Your task to perform on an android device: Search for seafood restaurants on Google Maps Image 0: 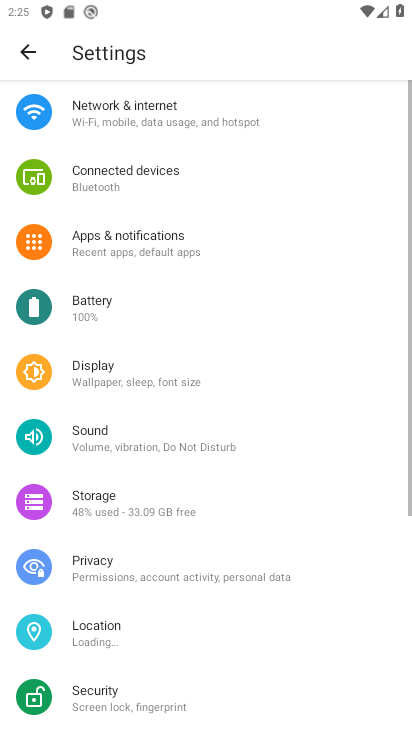
Step 0: press home button
Your task to perform on an android device: Search for seafood restaurants on Google Maps Image 1: 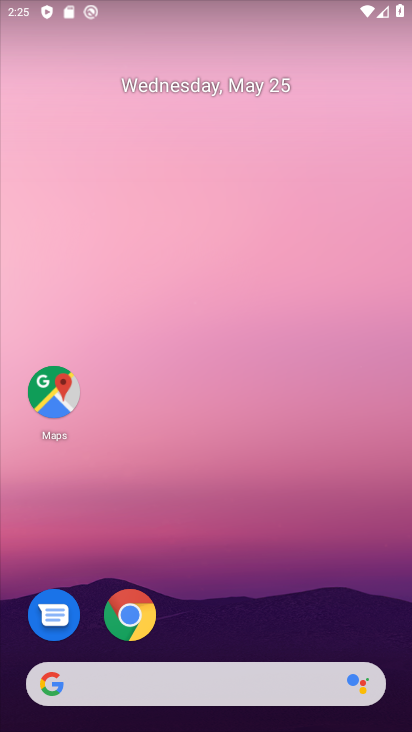
Step 1: click (48, 375)
Your task to perform on an android device: Search for seafood restaurants on Google Maps Image 2: 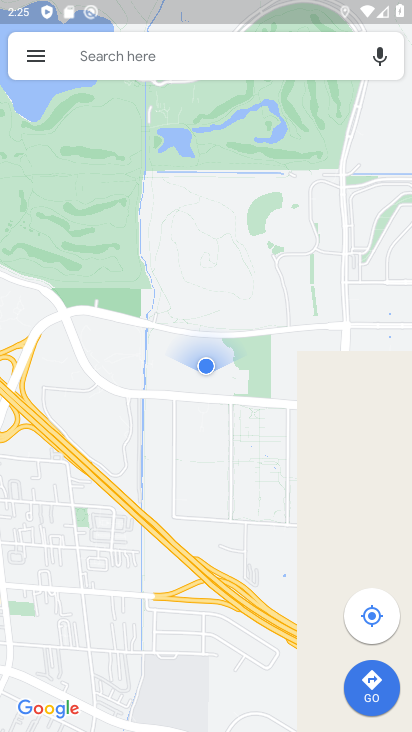
Step 2: click (69, 54)
Your task to perform on an android device: Search for seafood restaurants on Google Maps Image 3: 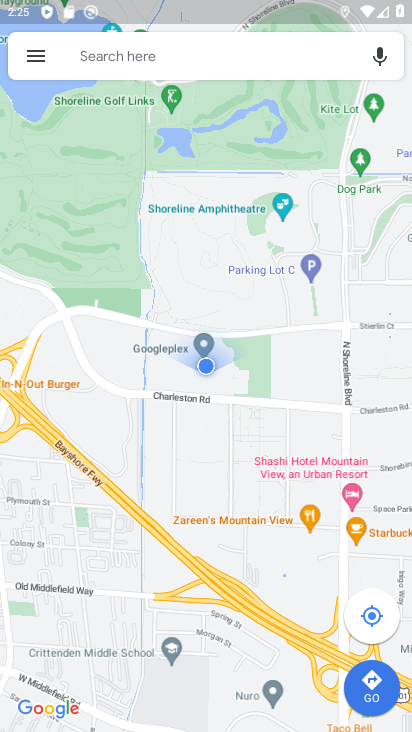
Step 3: click (70, 53)
Your task to perform on an android device: Search for seafood restaurants on Google Maps Image 4: 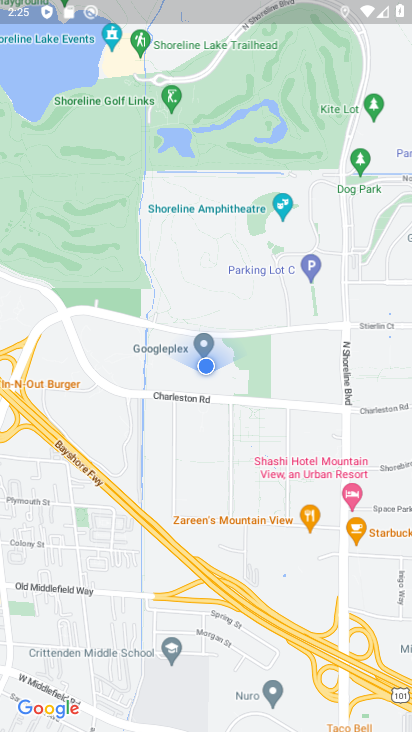
Step 4: press back button
Your task to perform on an android device: Search for seafood restaurants on Google Maps Image 5: 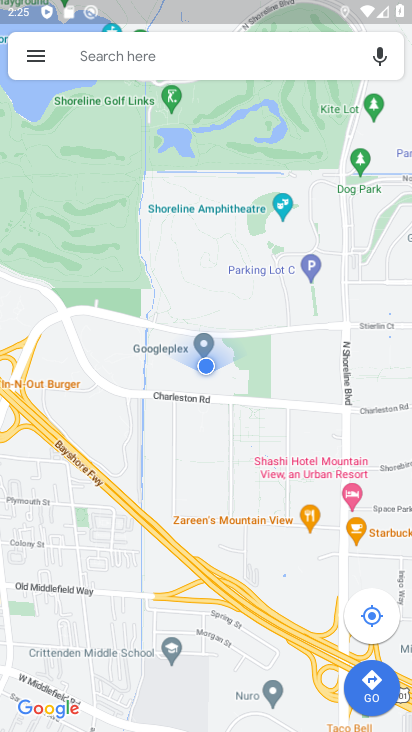
Step 5: click (81, 54)
Your task to perform on an android device: Search for seafood restaurants on Google Maps Image 6: 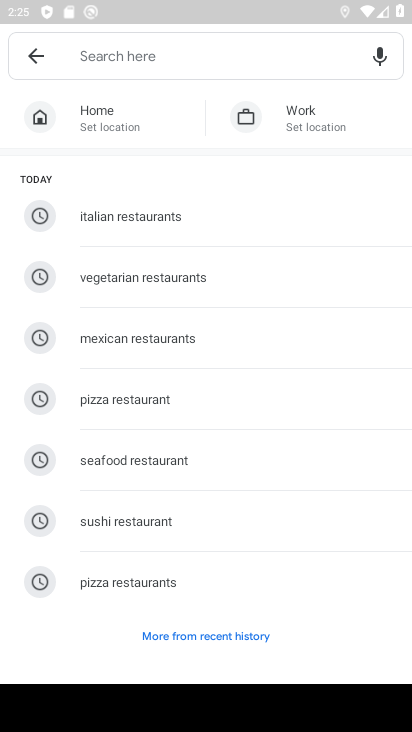
Step 6: type "seafood restaurants"
Your task to perform on an android device: Search for seafood restaurants on Google Maps Image 7: 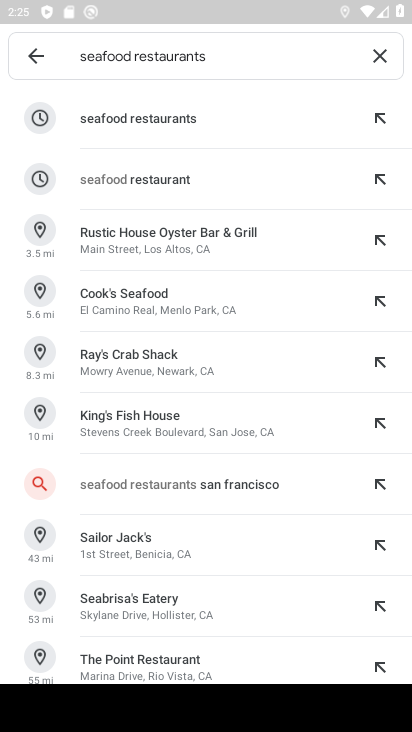
Step 7: click (136, 127)
Your task to perform on an android device: Search for seafood restaurants on Google Maps Image 8: 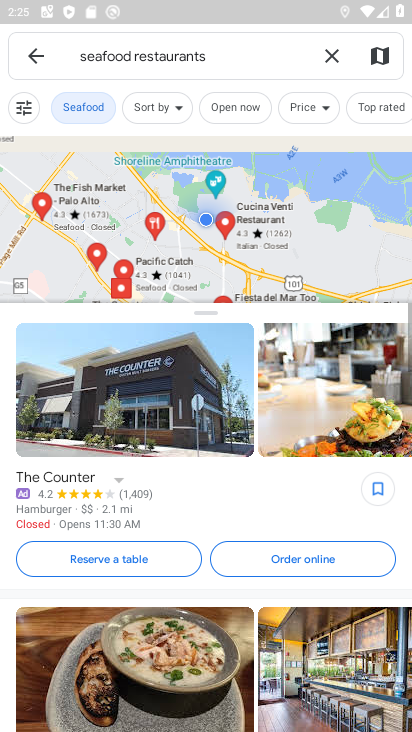
Step 8: task complete